Your task to perform on an android device: choose inbox layout in the gmail app Image 0: 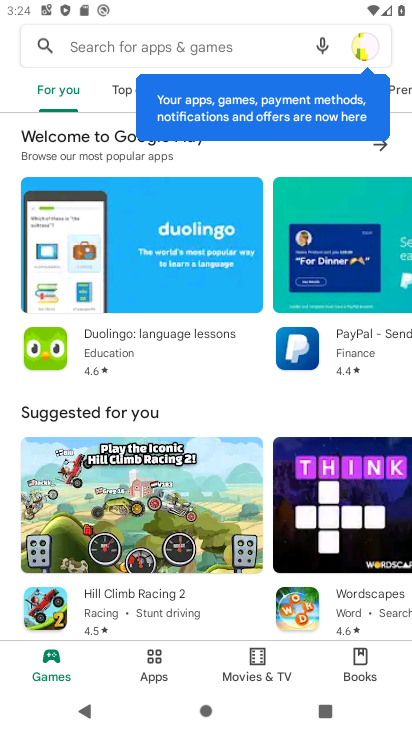
Step 0: press home button
Your task to perform on an android device: choose inbox layout in the gmail app Image 1: 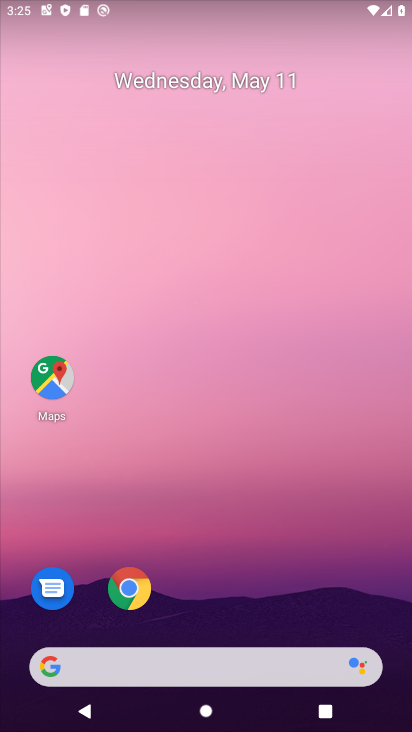
Step 1: drag from (237, 611) to (279, 27)
Your task to perform on an android device: choose inbox layout in the gmail app Image 2: 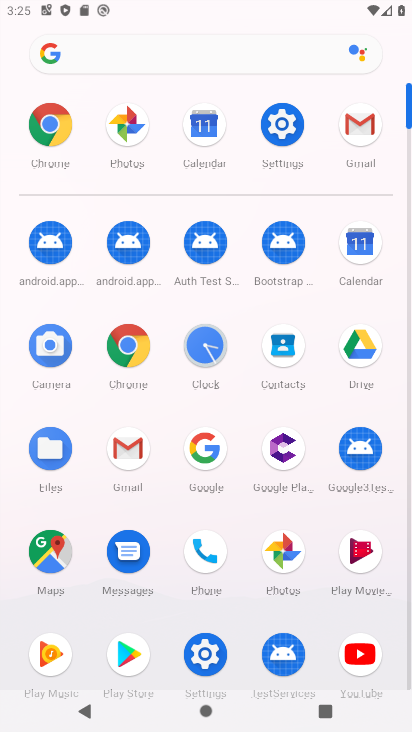
Step 2: click (142, 455)
Your task to perform on an android device: choose inbox layout in the gmail app Image 3: 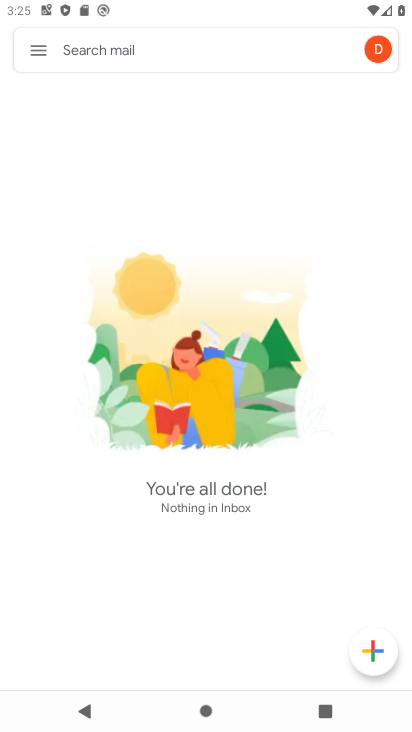
Step 3: click (46, 63)
Your task to perform on an android device: choose inbox layout in the gmail app Image 4: 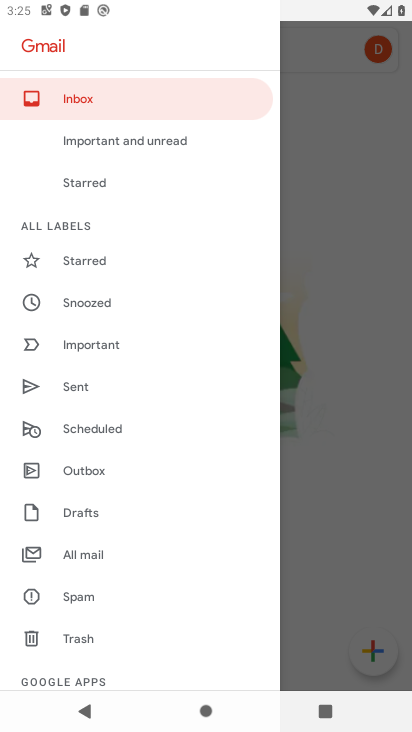
Step 4: drag from (103, 508) to (155, 239)
Your task to perform on an android device: choose inbox layout in the gmail app Image 5: 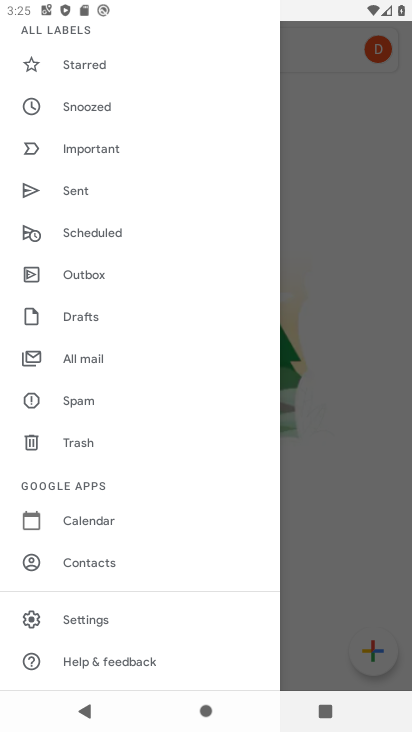
Step 5: click (99, 615)
Your task to perform on an android device: choose inbox layout in the gmail app Image 6: 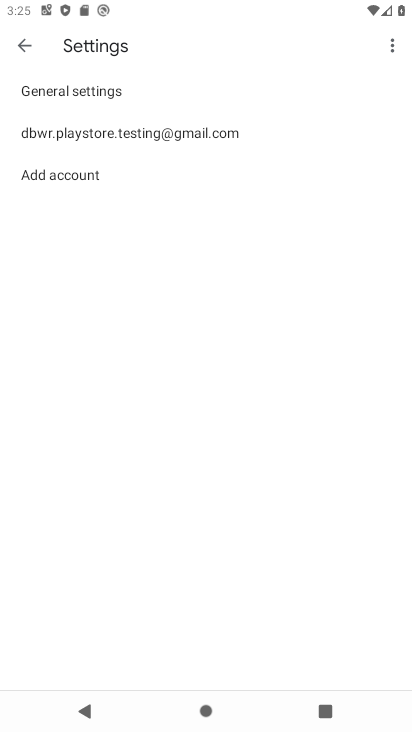
Step 6: click (108, 130)
Your task to perform on an android device: choose inbox layout in the gmail app Image 7: 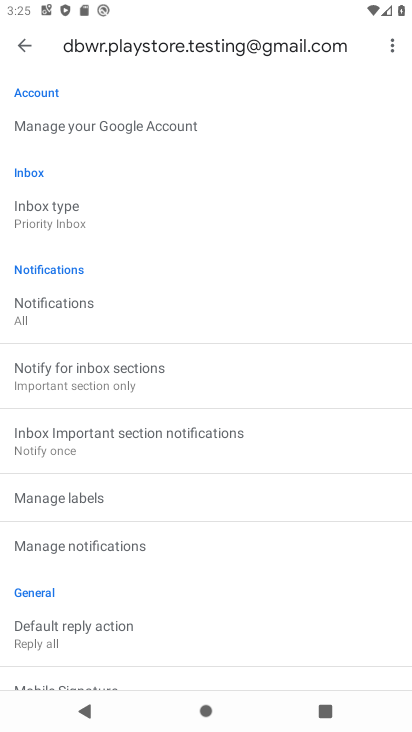
Step 7: click (59, 229)
Your task to perform on an android device: choose inbox layout in the gmail app Image 8: 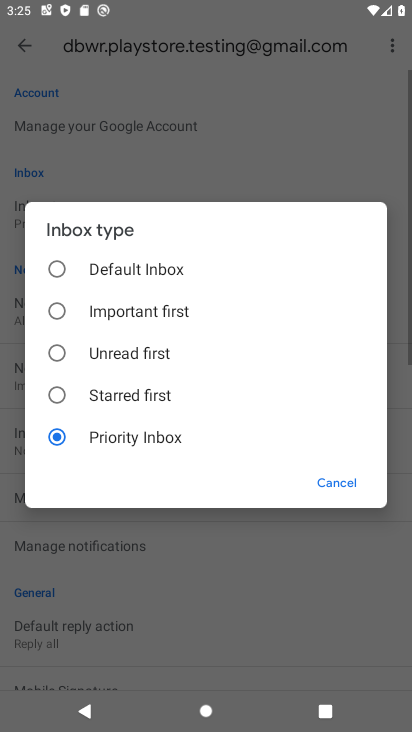
Step 8: click (108, 258)
Your task to perform on an android device: choose inbox layout in the gmail app Image 9: 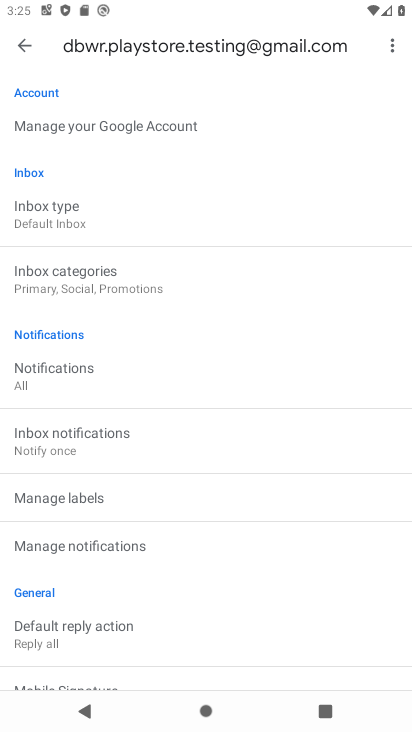
Step 9: task complete